Your task to perform on an android device: open chrome and create a bookmark for the current page Image 0: 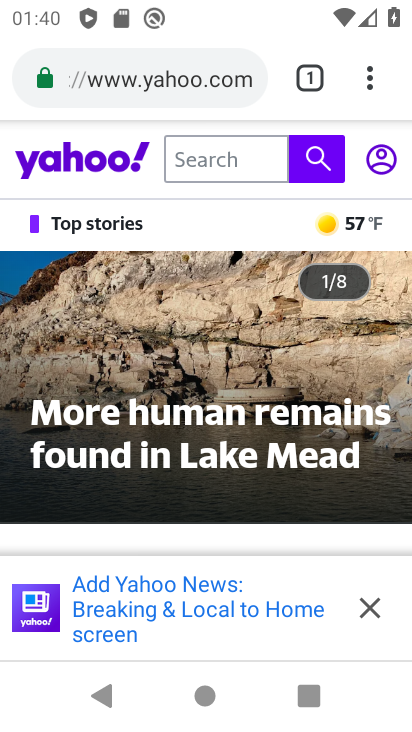
Step 0: click (379, 84)
Your task to perform on an android device: open chrome and create a bookmark for the current page Image 1: 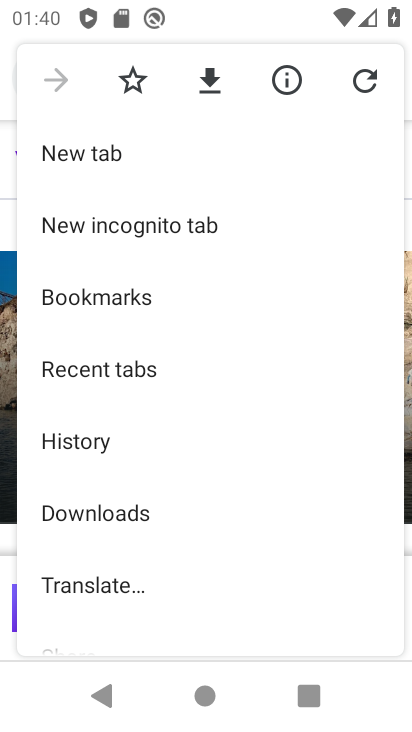
Step 1: click (138, 82)
Your task to perform on an android device: open chrome and create a bookmark for the current page Image 2: 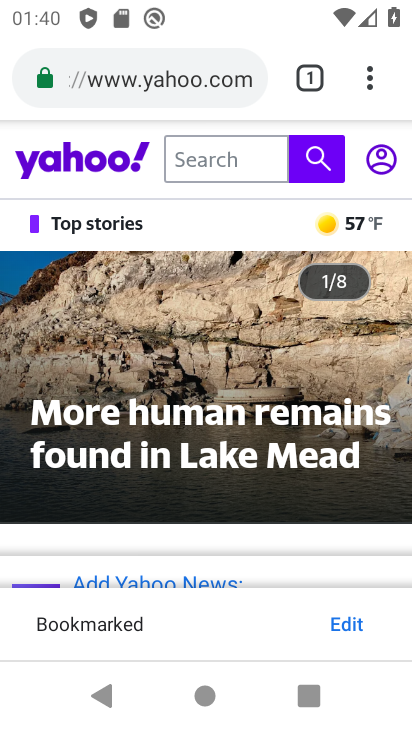
Step 2: task complete